Your task to perform on an android device: Turn on the flashlight Image 0: 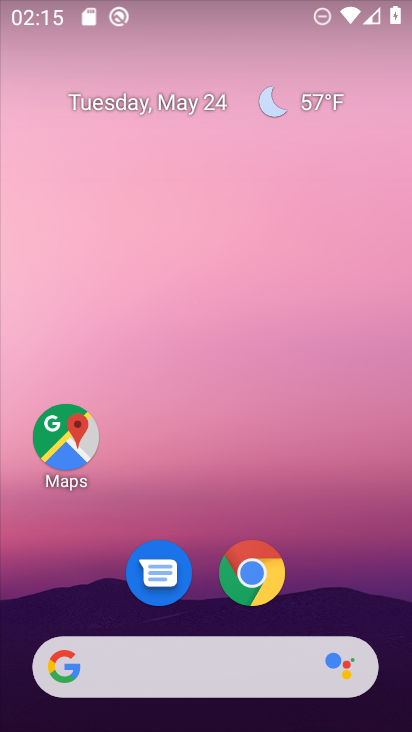
Step 0: drag from (361, 576) to (352, 158)
Your task to perform on an android device: Turn on the flashlight Image 1: 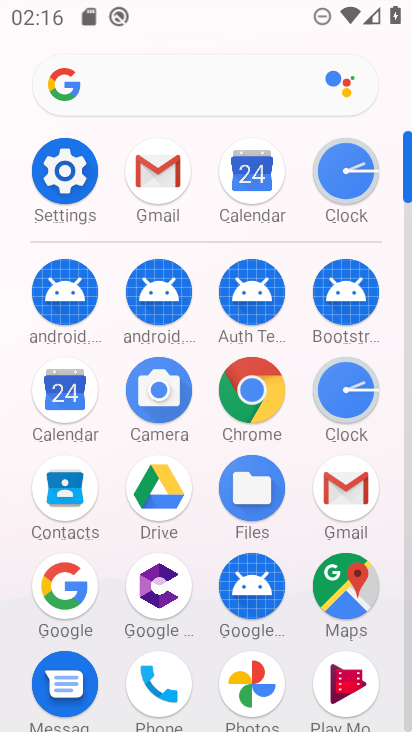
Step 1: click (60, 167)
Your task to perform on an android device: Turn on the flashlight Image 2: 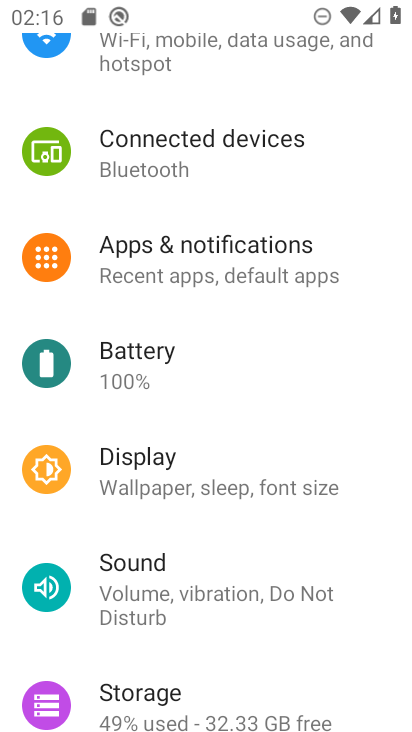
Step 2: drag from (241, 151) to (232, 493)
Your task to perform on an android device: Turn on the flashlight Image 3: 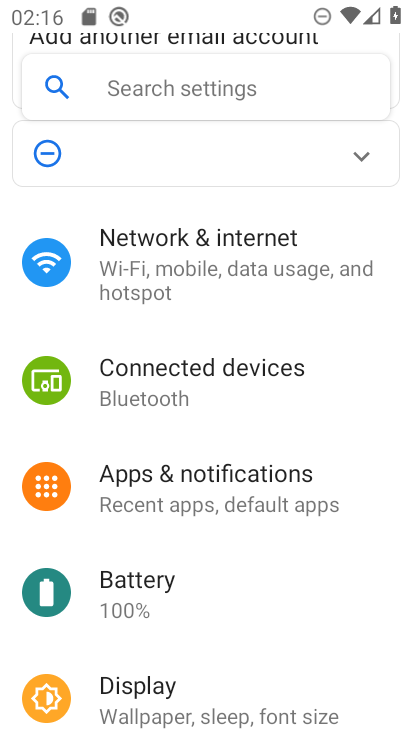
Step 3: click (236, 83)
Your task to perform on an android device: Turn on the flashlight Image 4: 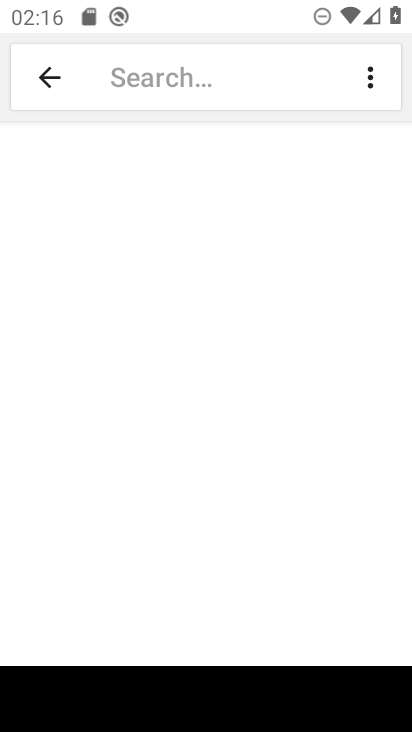
Step 4: type "flashlight"
Your task to perform on an android device: Turn on the flashlight Image 5: 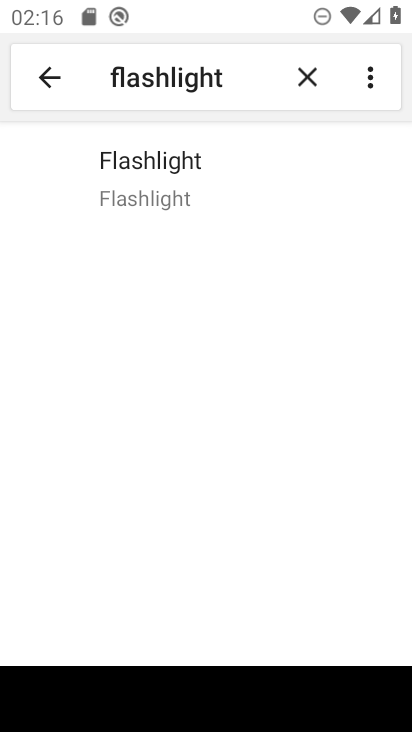
Step 5: click (160, 203)
Your task to perform on an android device: Turn on the flashlight Image 6: 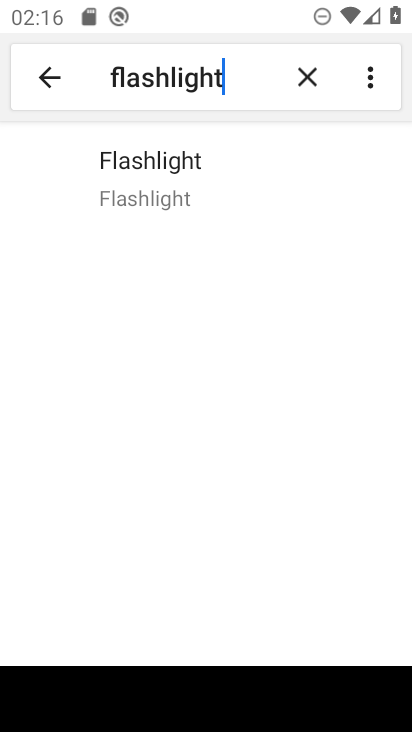
Step 6: click (161, 203)
Your task to perform on an android device: Turn on the flashlight Image 7: 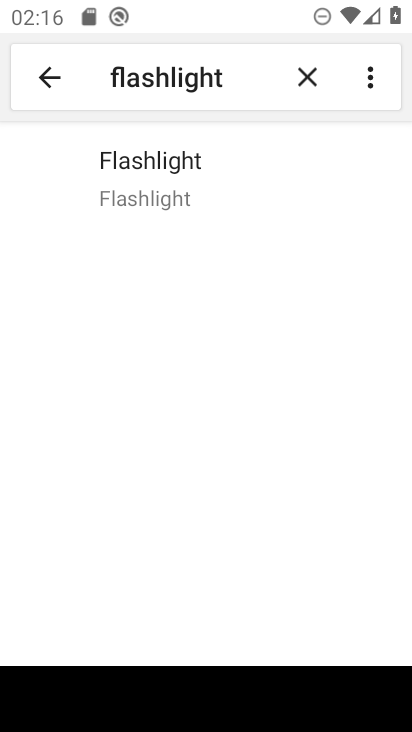
Step 7: task complete